Your task to perform on an android device: install app "LiveIn - Share Your Moment" Image 0: 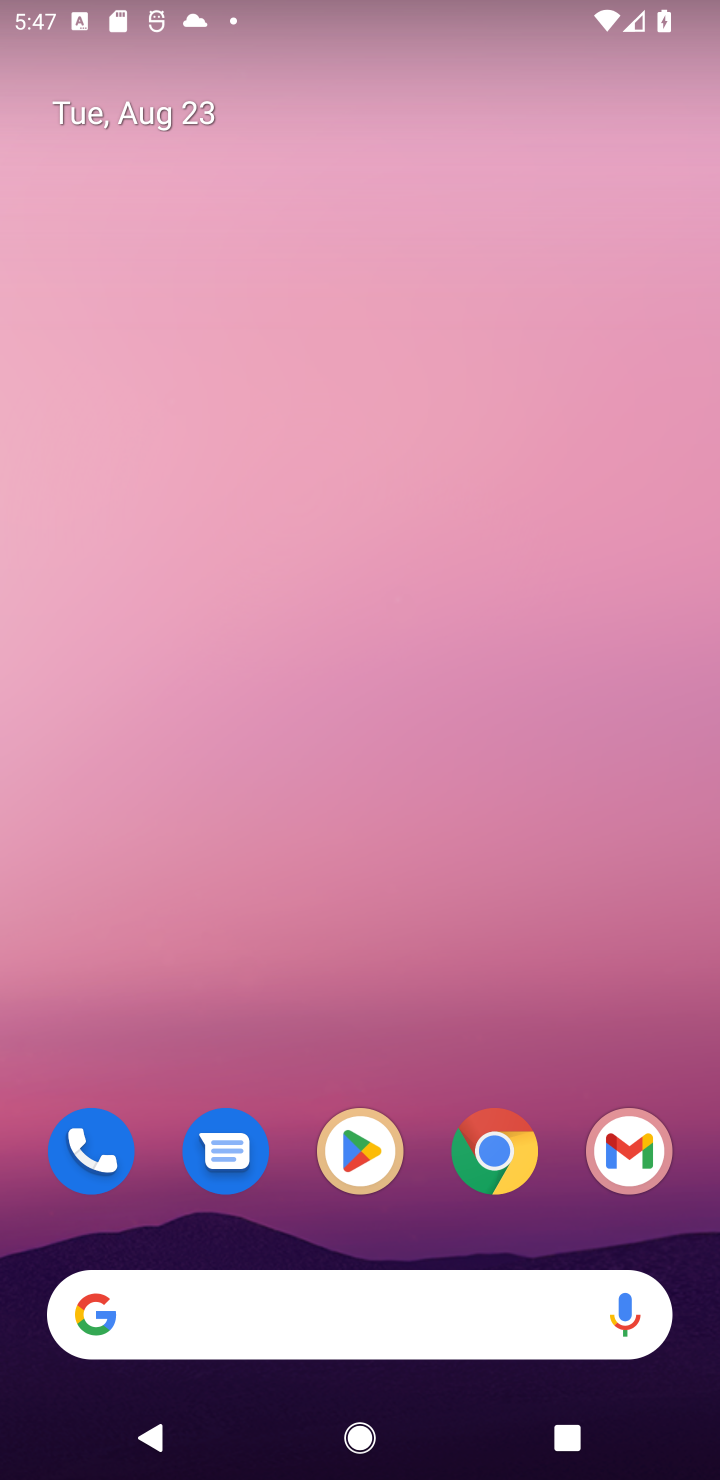
Step 0: press home button
Your task to perform on an android device: install app "LiveIn - Share Your Moment" Image 1: 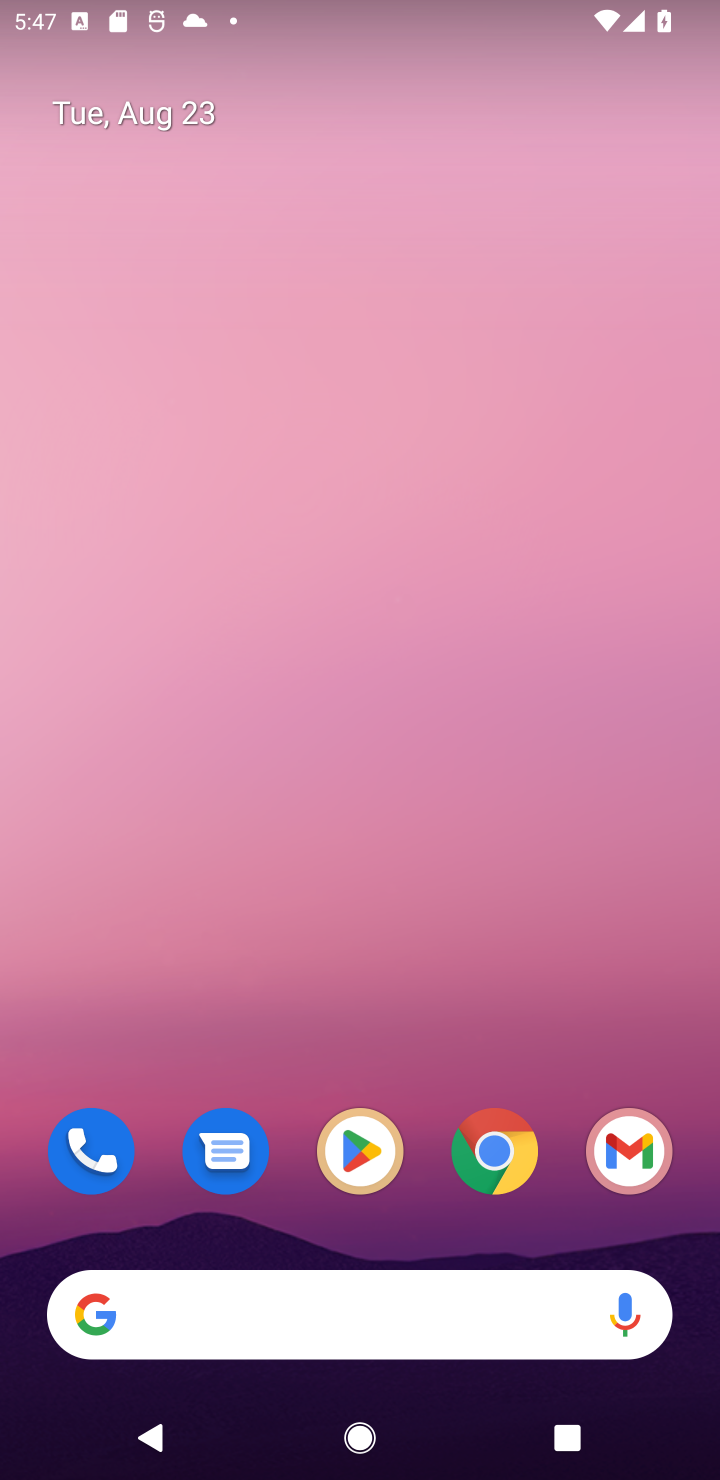
Step 1: click (345, 1153)
Your task to perform on an android device: install app "LiveIn - Share Your Moment" Image 2: 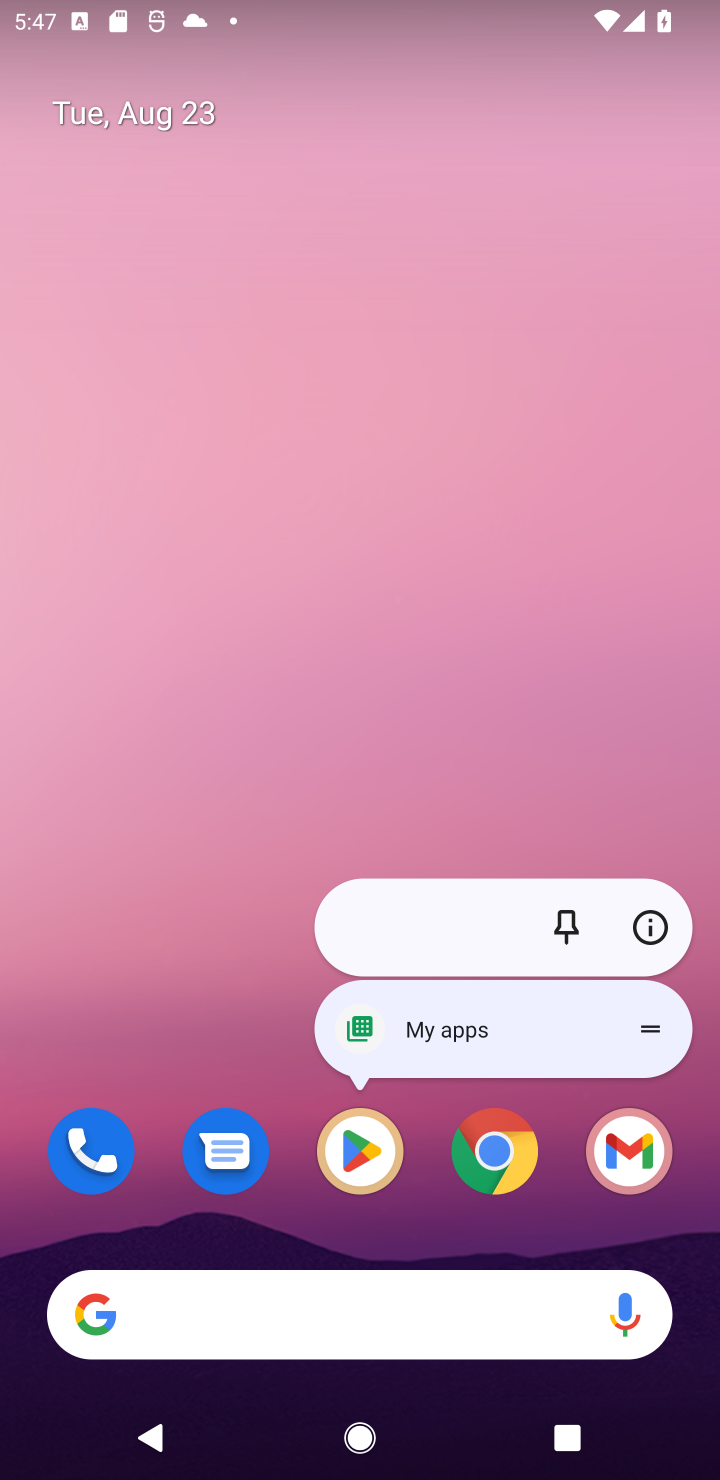
Step 2: click (347, 1168)
Your task to perform on an android device: install app "LiveIn - Share Your Moment" Image 3: 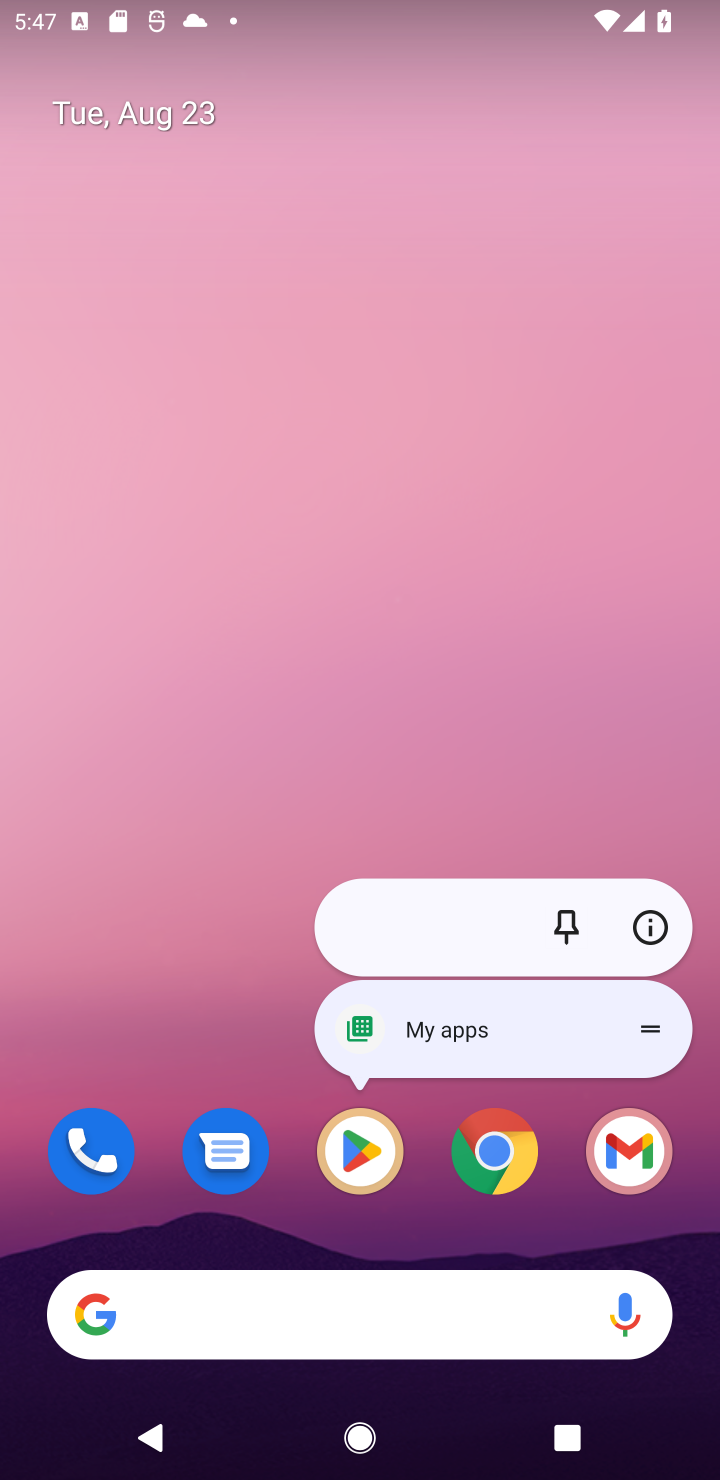
Step 3: click (387, 1157)
Your task to perform on an android device: install app "LiveIn - Share Your Moment" Image 4: 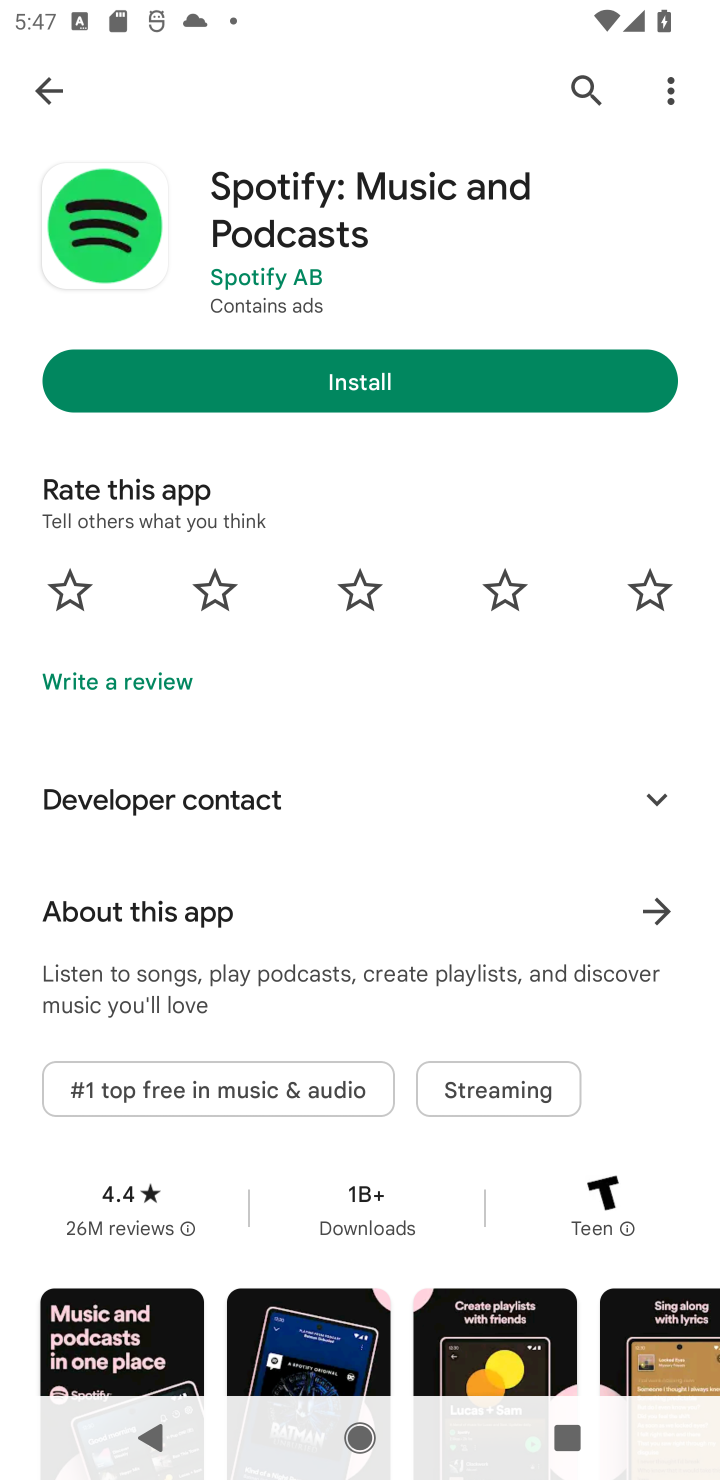
Step 4: click (581, 73)
Your task to perform on an android device: install app "LiveIn - Share Your Moment" Image 5: 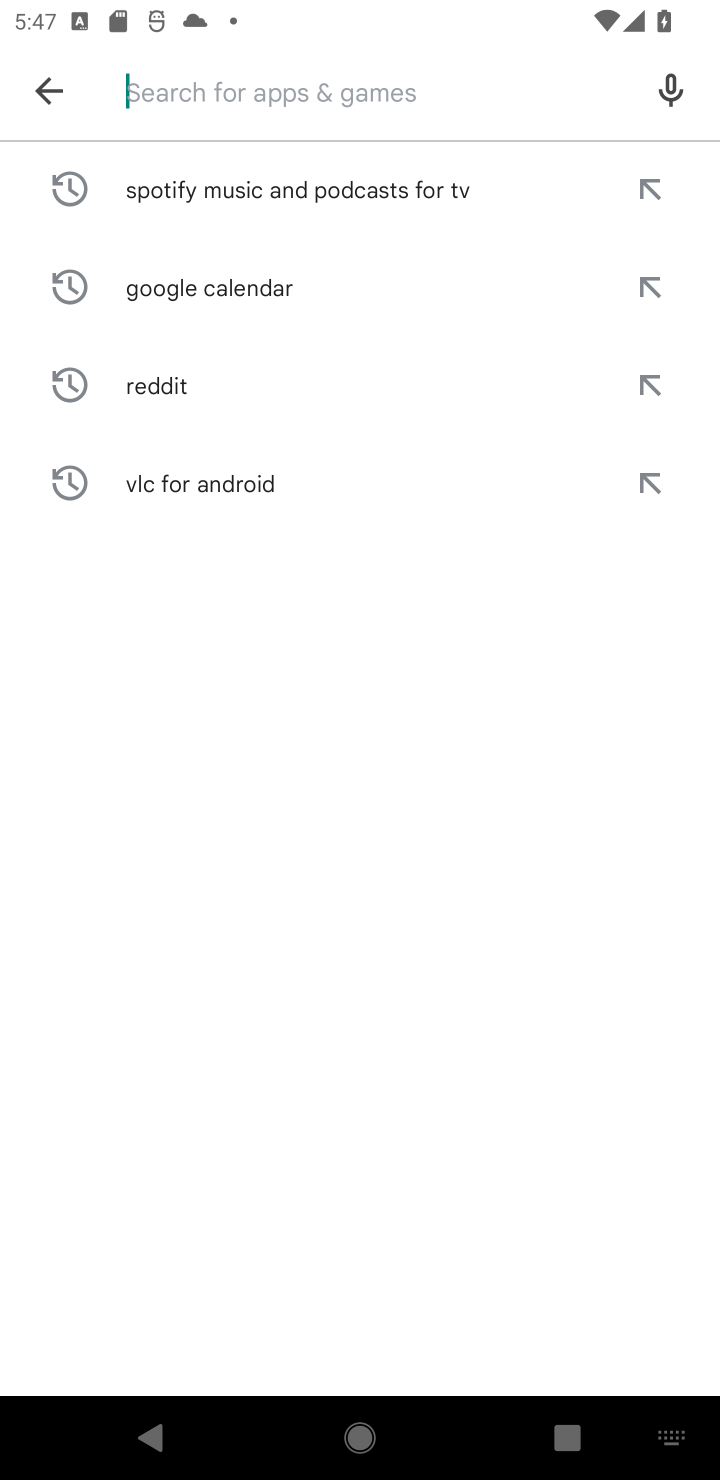
Step 5: type "LiveIn - Share Your Moment"
Your task to perform on an android device: install app "LiveIn - Share Your Moment" Image 6: 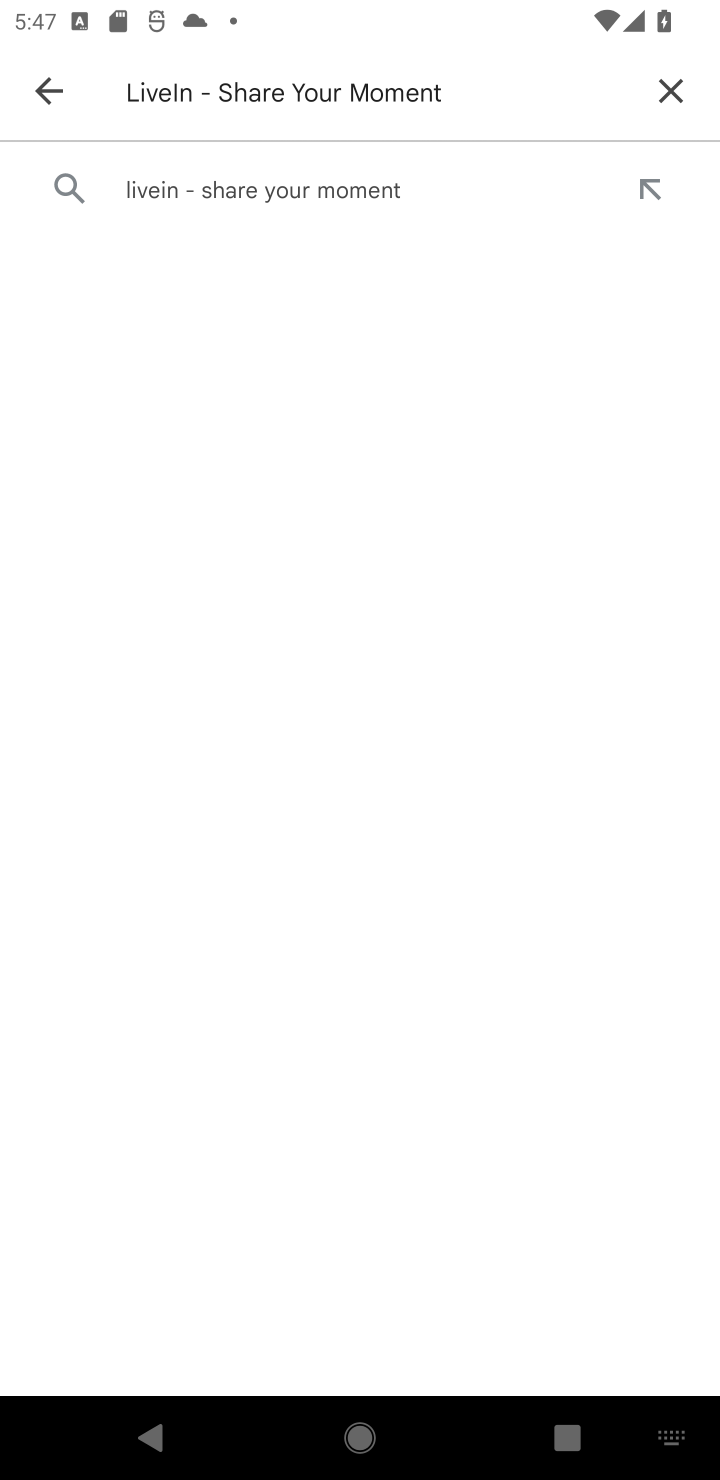
Step 6: click (211, 180)
Your task to perform on an android device: install app "LiveIn - Share Your Moment" Image 7: 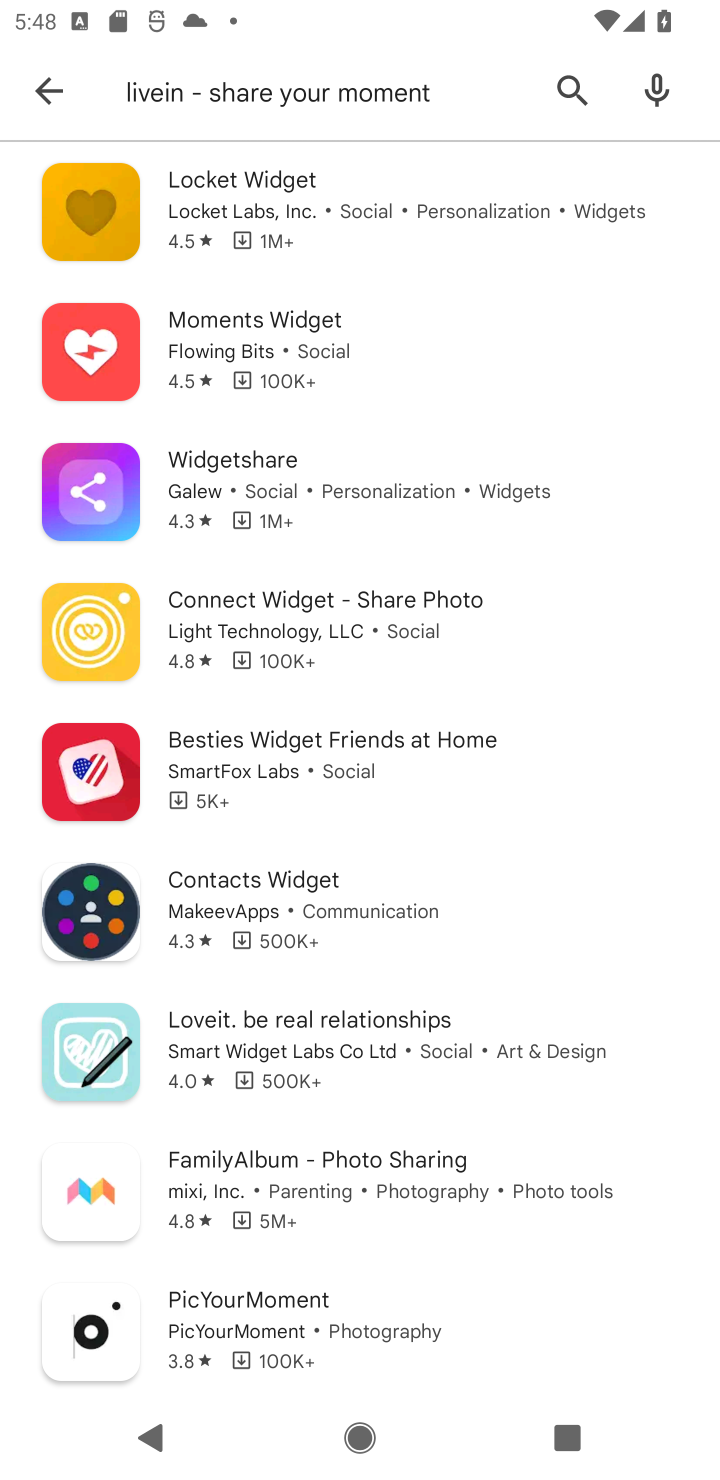
Step 7: task complete